Your task to perform on an android device: uninstall "Google Photos" Image 0: 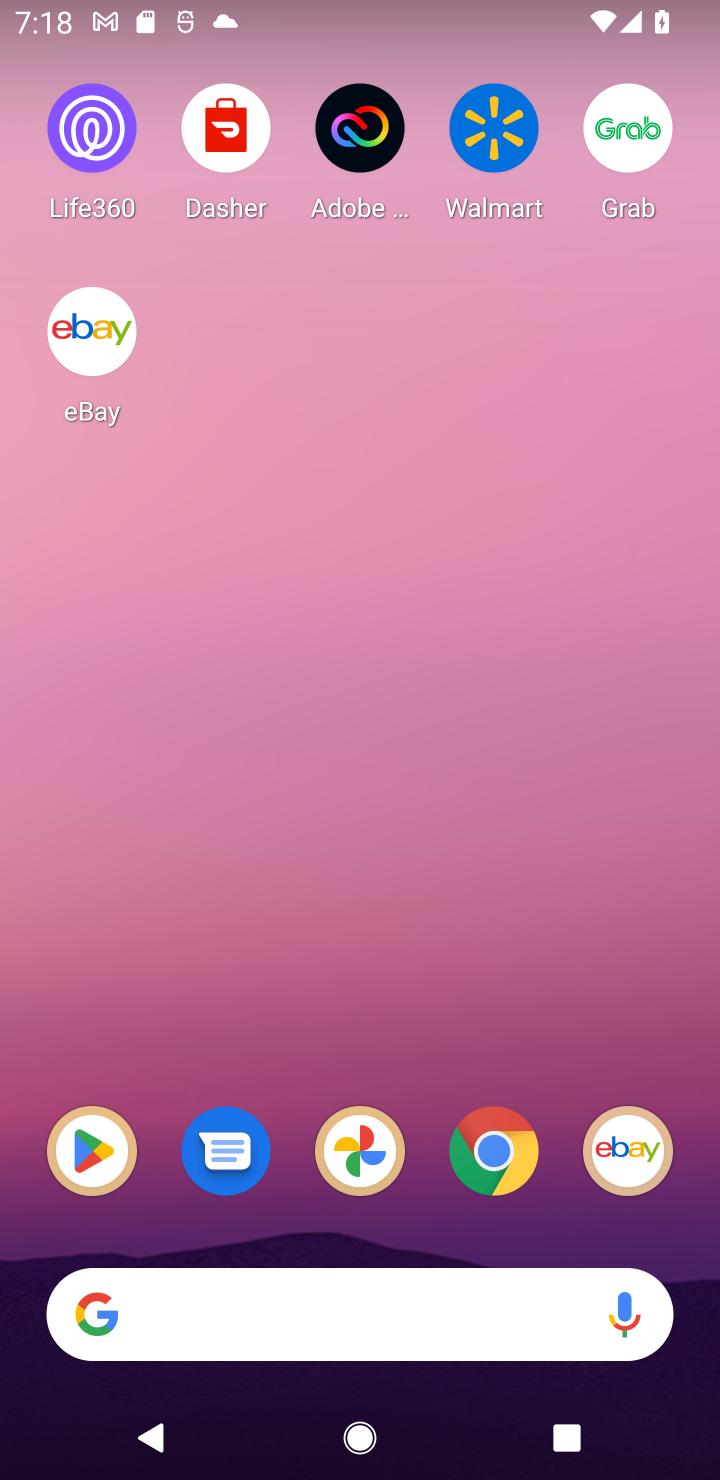
Step 0: click (47, 1177)
Your task to perform on an android device: uninstall "Google Photos" Image 1: 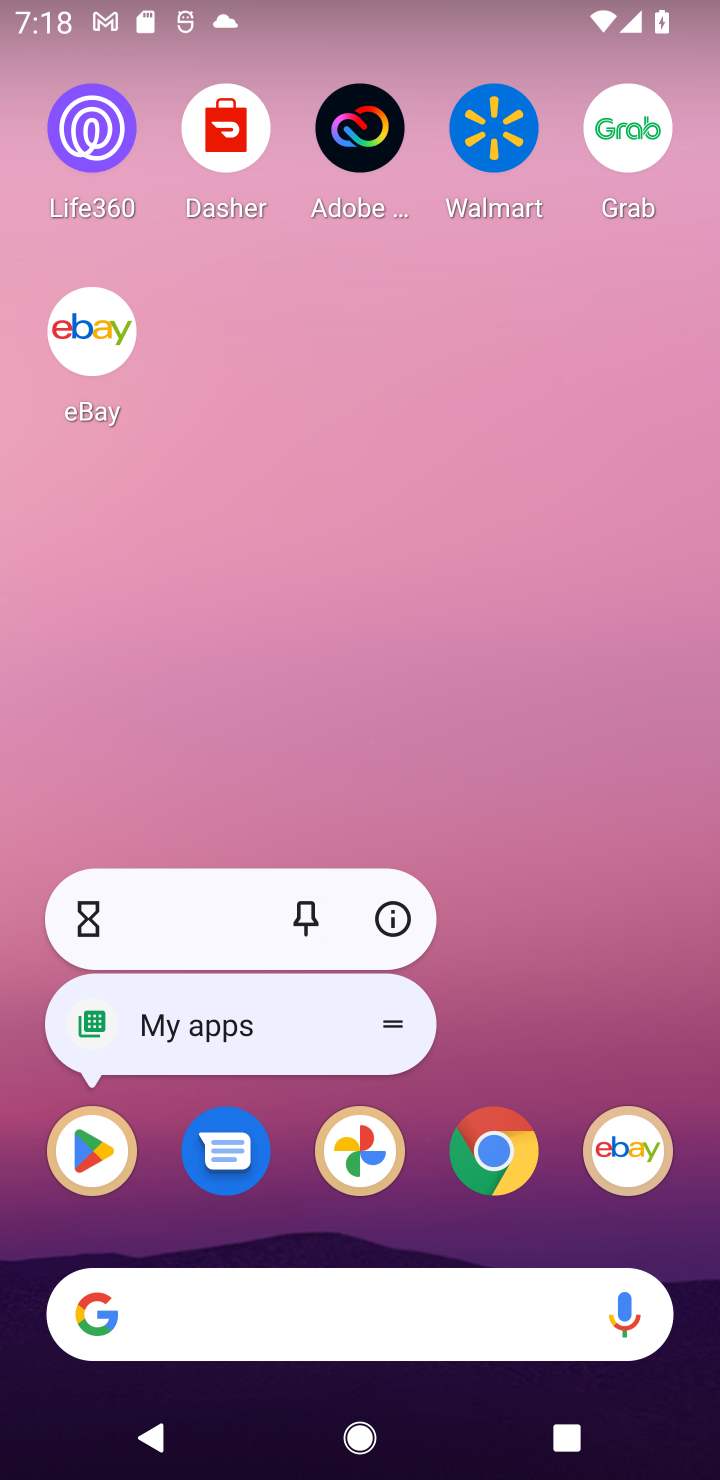
Step 1: click (71, 1150)
Your task to perform on an android device: uninstall "Google Photos" Image 2: 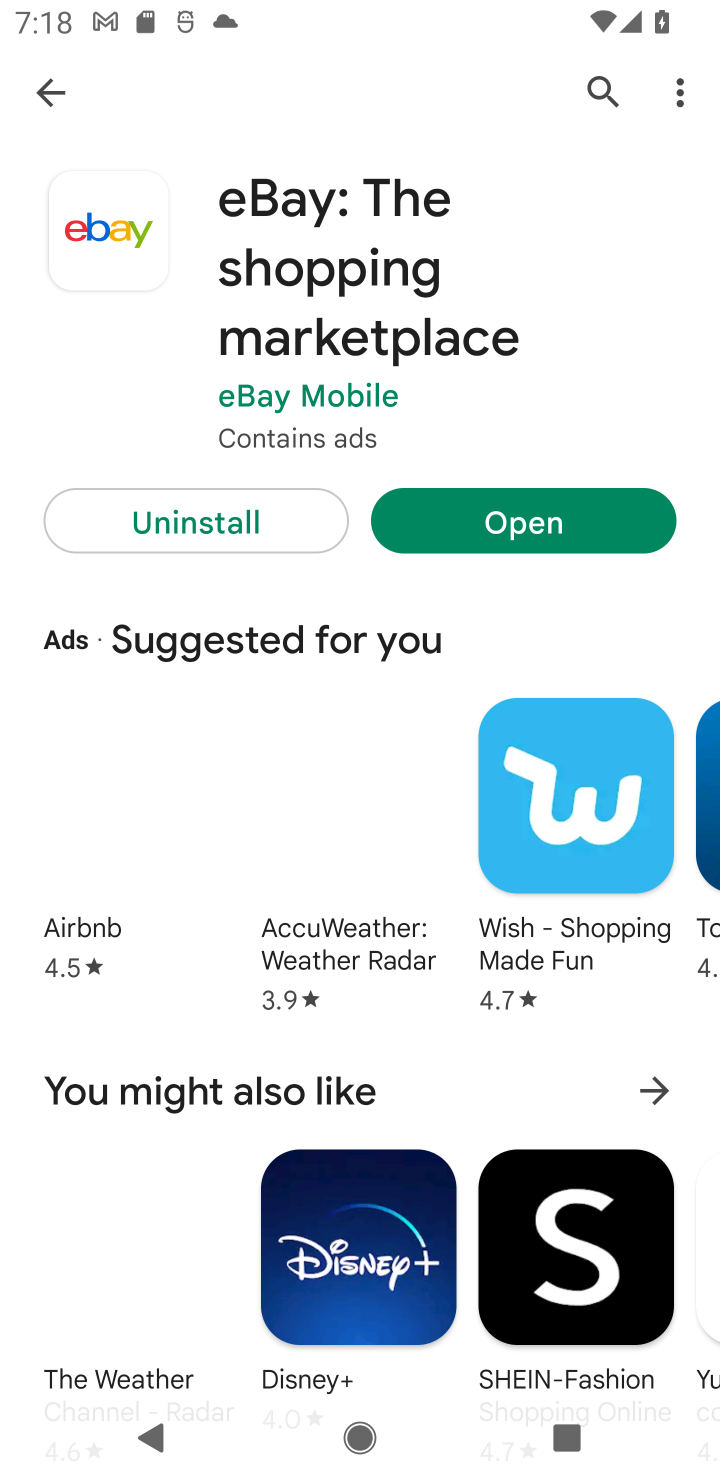
Step 2: click (606, 89)
Your task to perform on an android device: uninstall "Google Photos" Image 3: 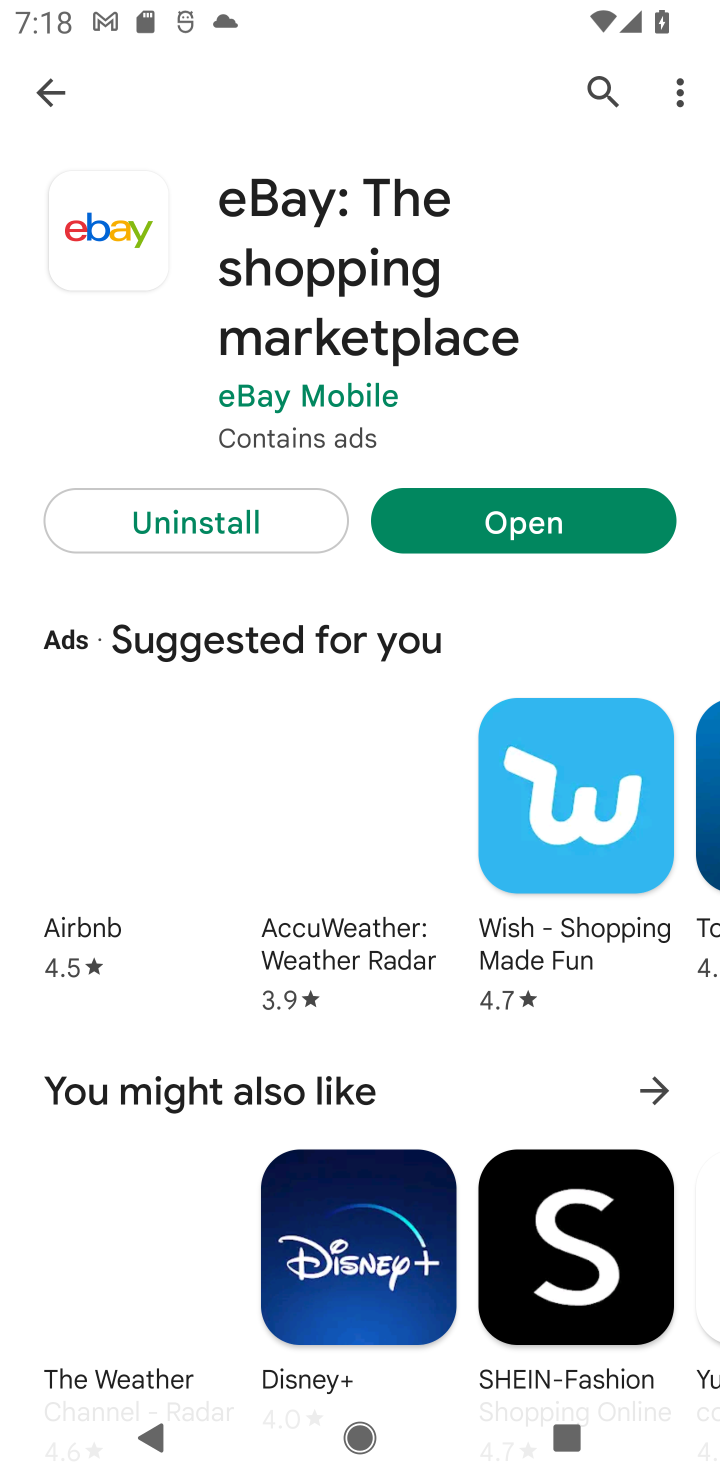
Step 3: click (584, 107)
Your task to perform on an android device: uninstall "Google Photos" Image 4: 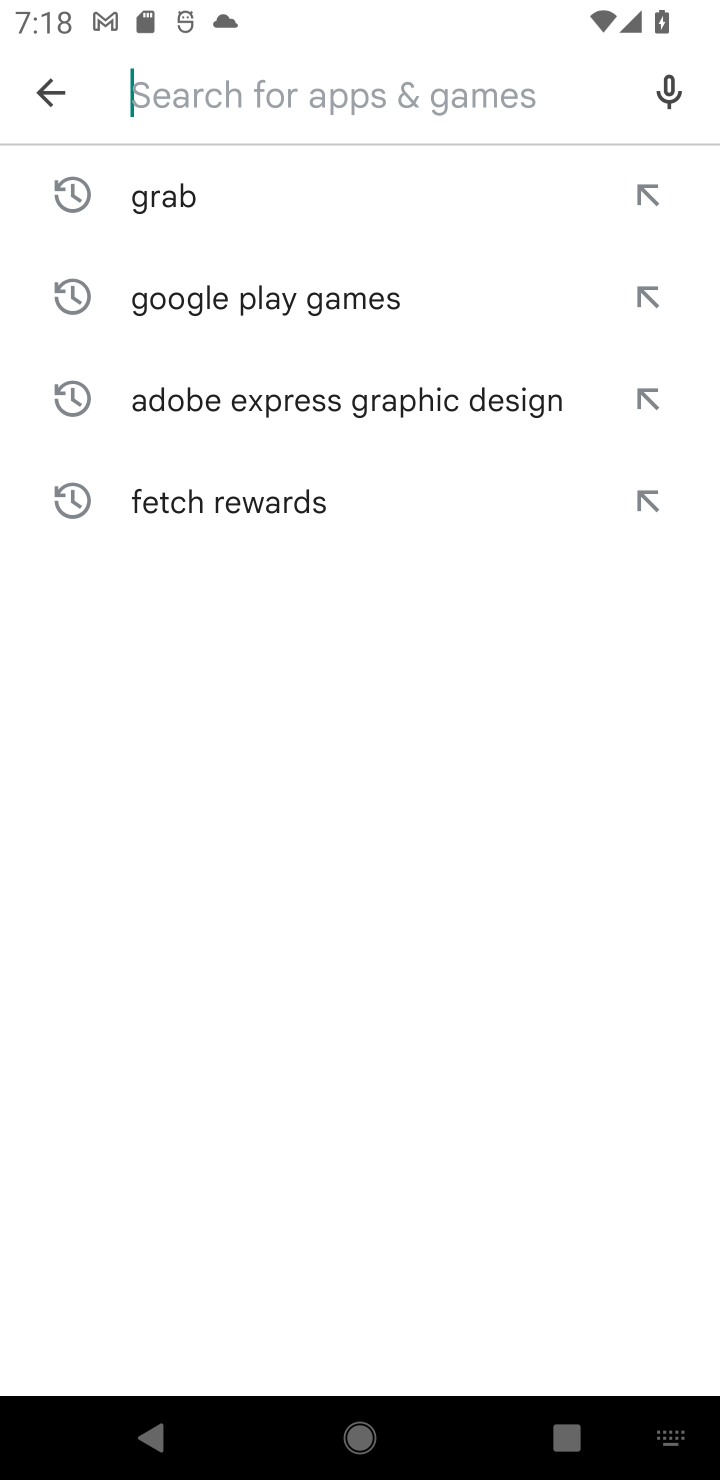
Step 4: type "Google Photos"
Your task to perform on an android device: uninstall "Google Photos" Image 5: 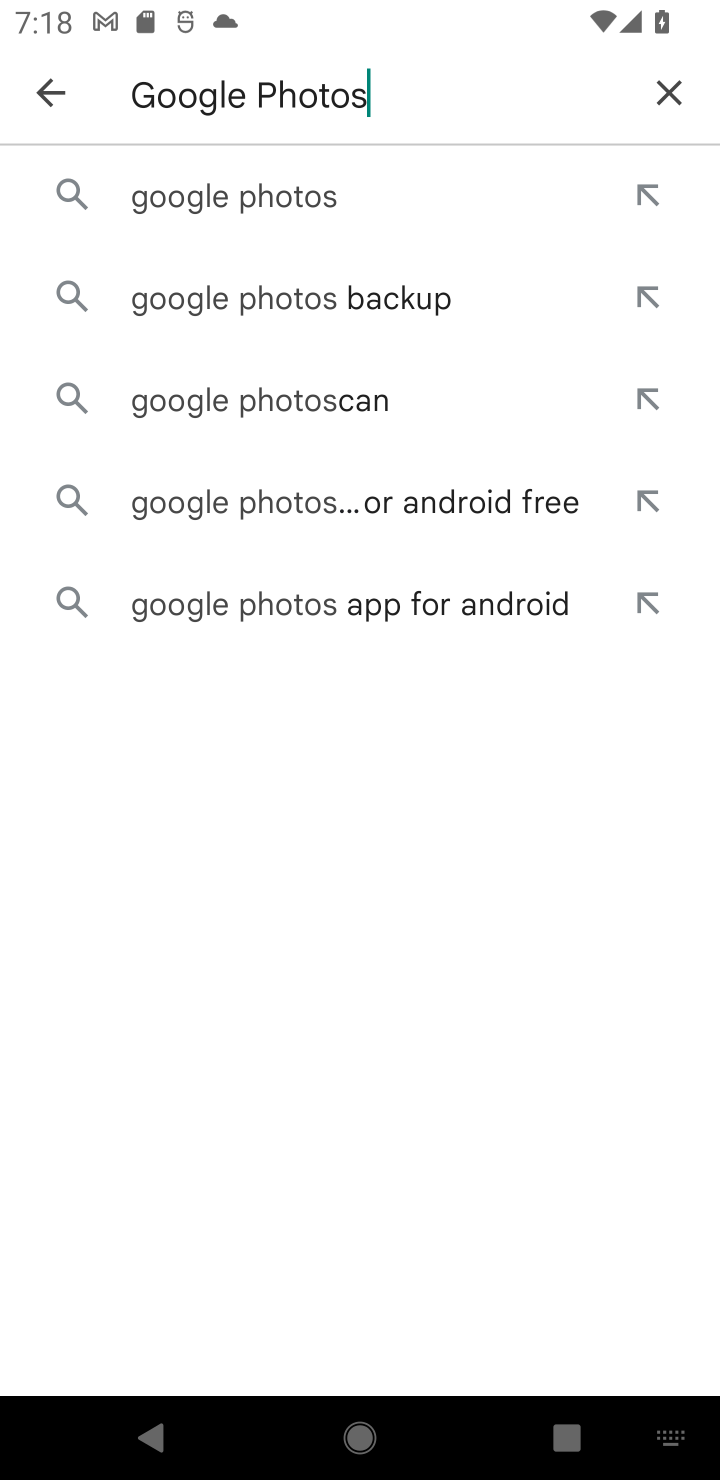
Step 5: click (303, 171)
Your task to perform on an android device: uninstall "Google Photos" Image 6: 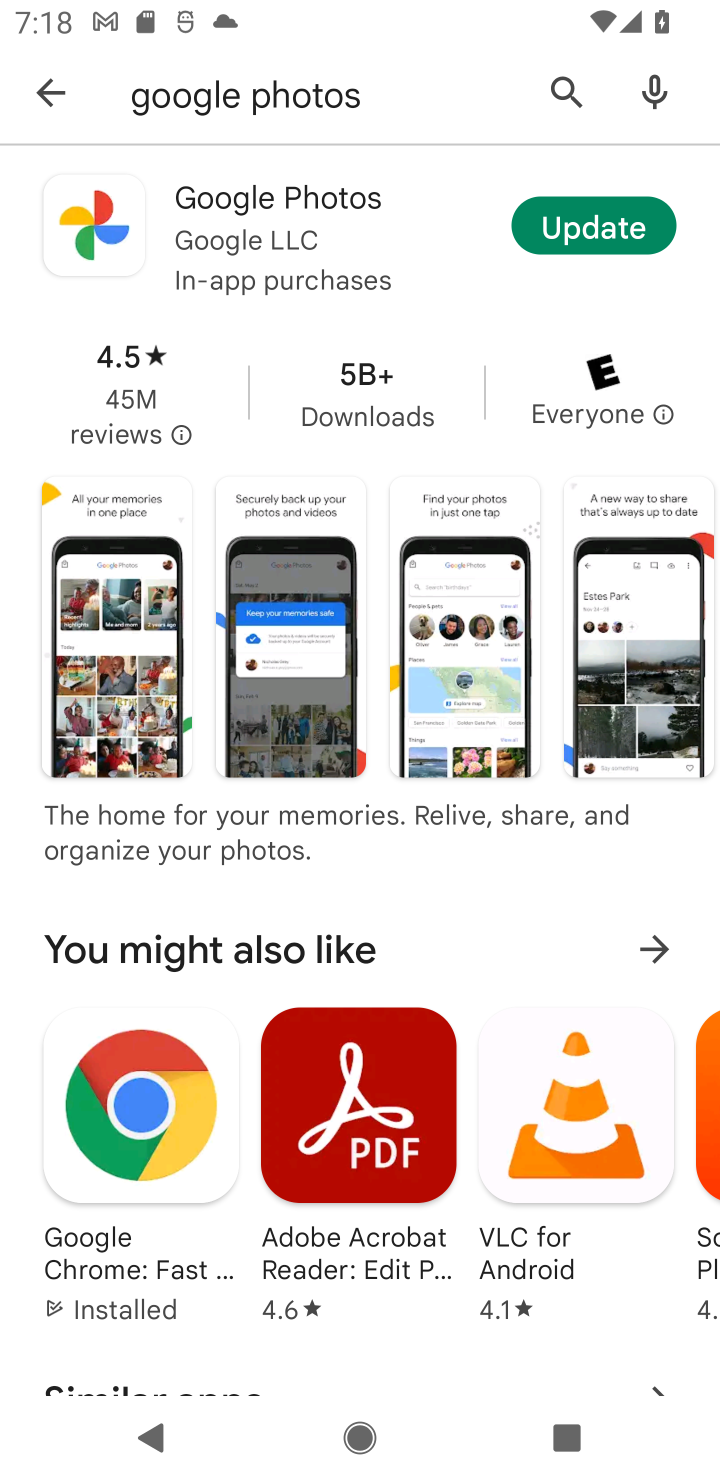
Step 6: click (288, 225)
Your task to perform on an android device: uninstall "Google Photos" Image 7: 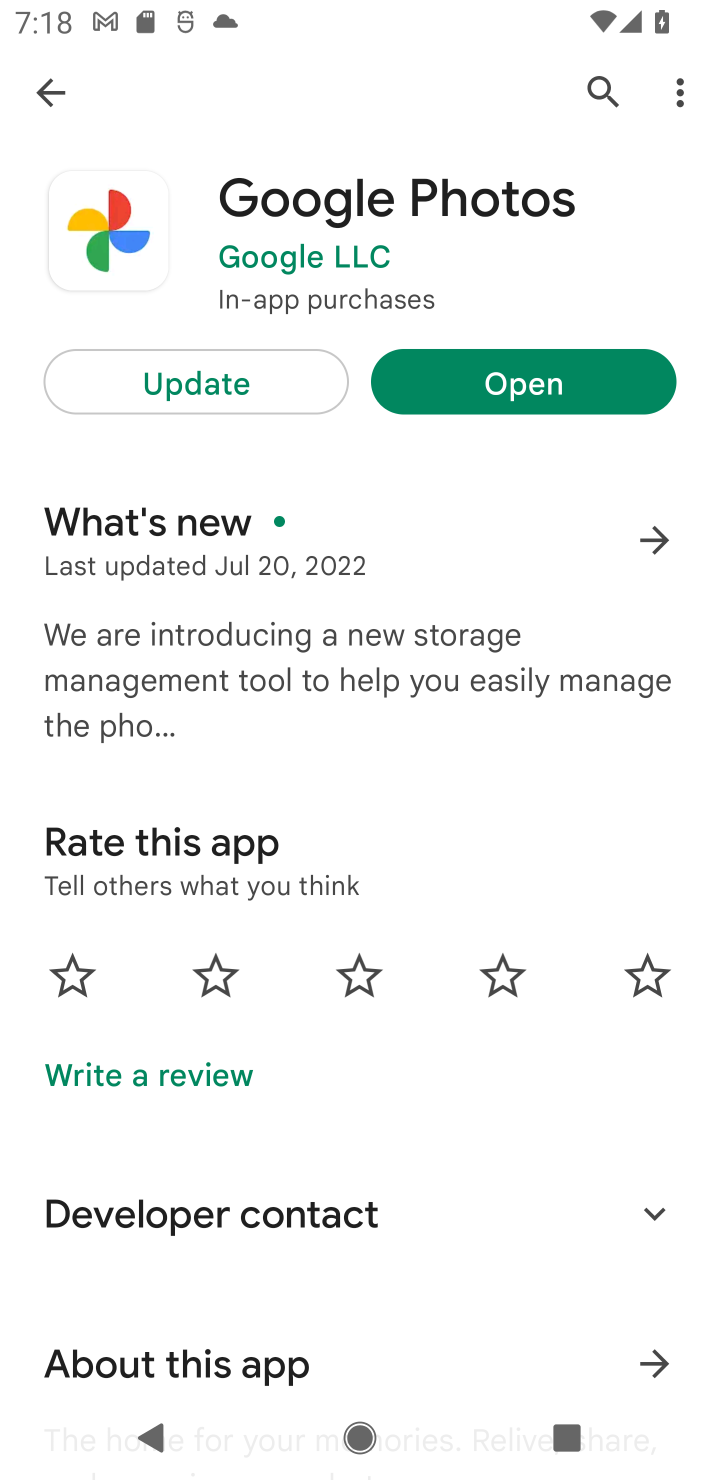
Step 7: click (215, 374)
Your task to perform on an android device: uninstall "Google Photos" Image 8: 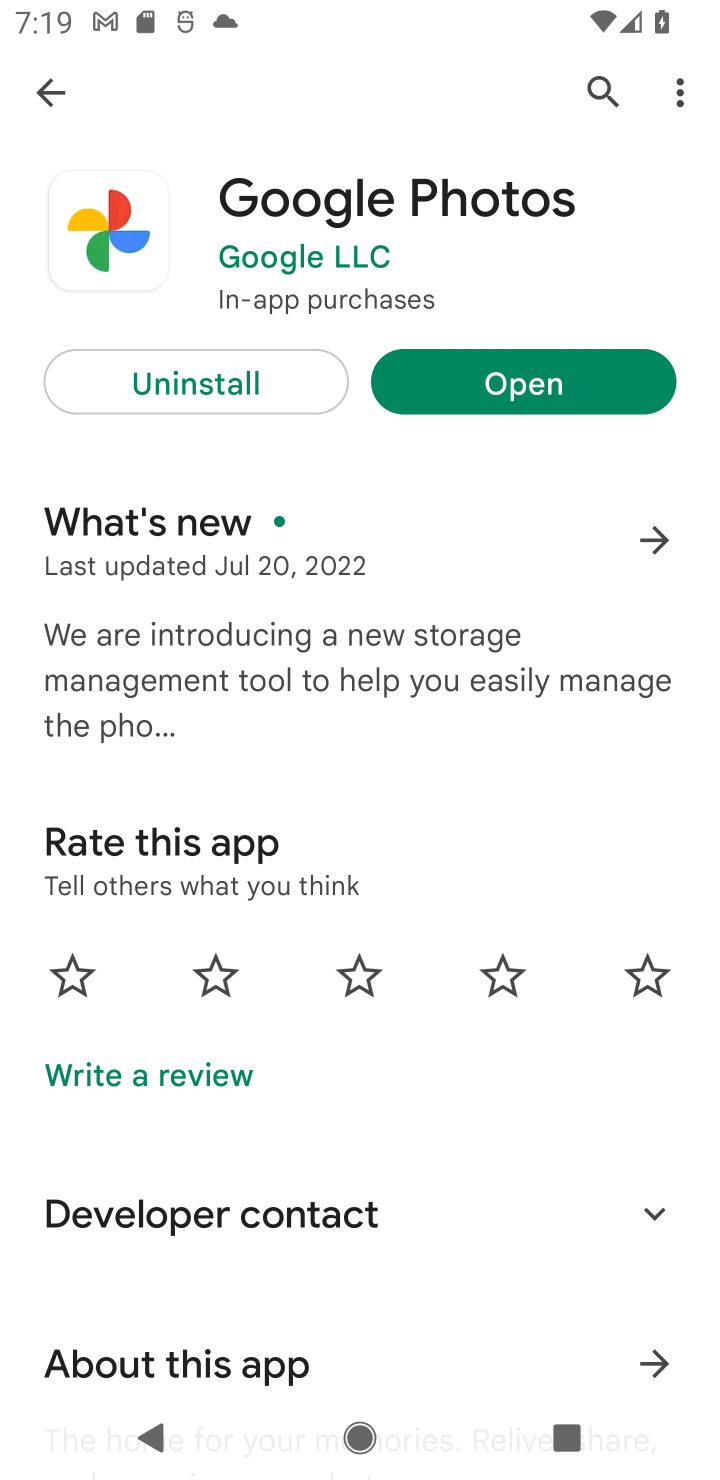
Step 8: click (269, 382)
Your task to perform on an android device: uninstall "Google Photos" Image 9: 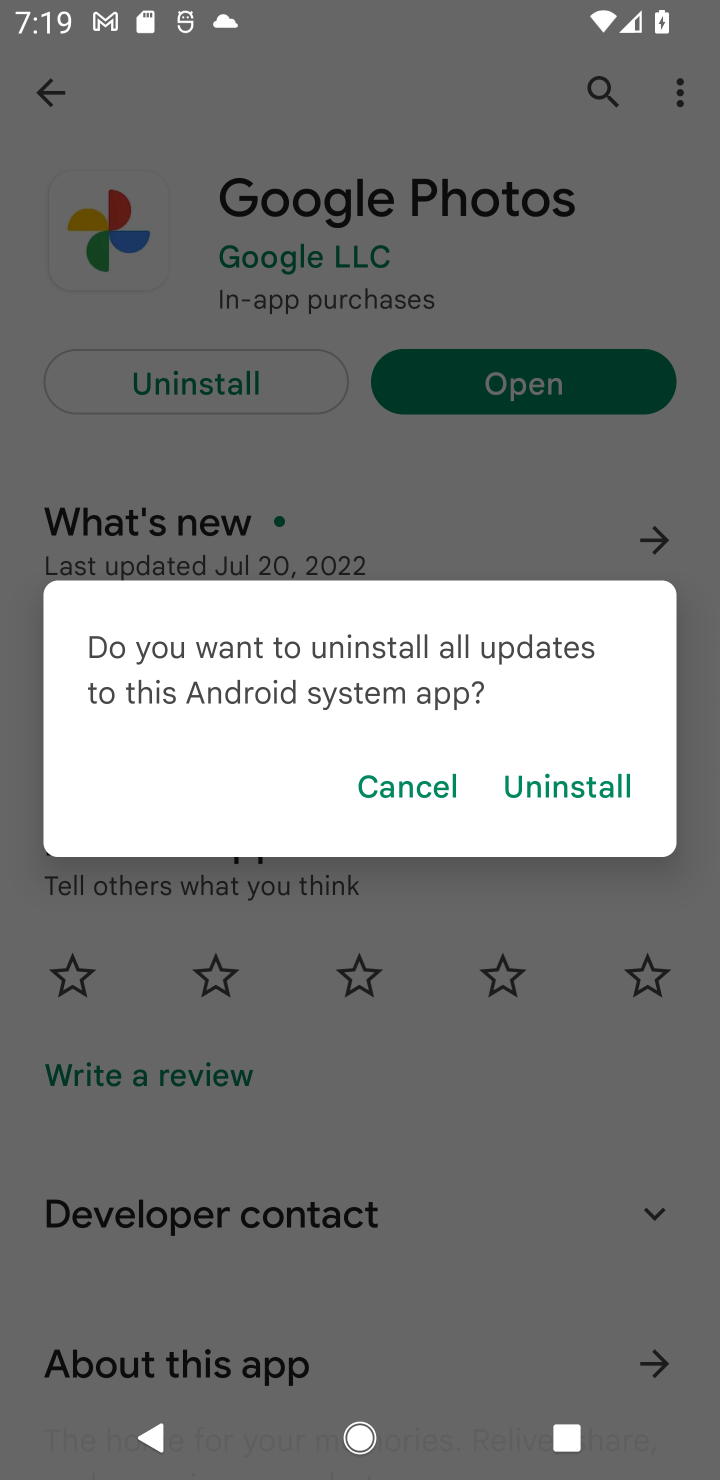
Step 9: click (578, 767)
Your task to perform on an android device: uninstall "Google Photos" Image 10: 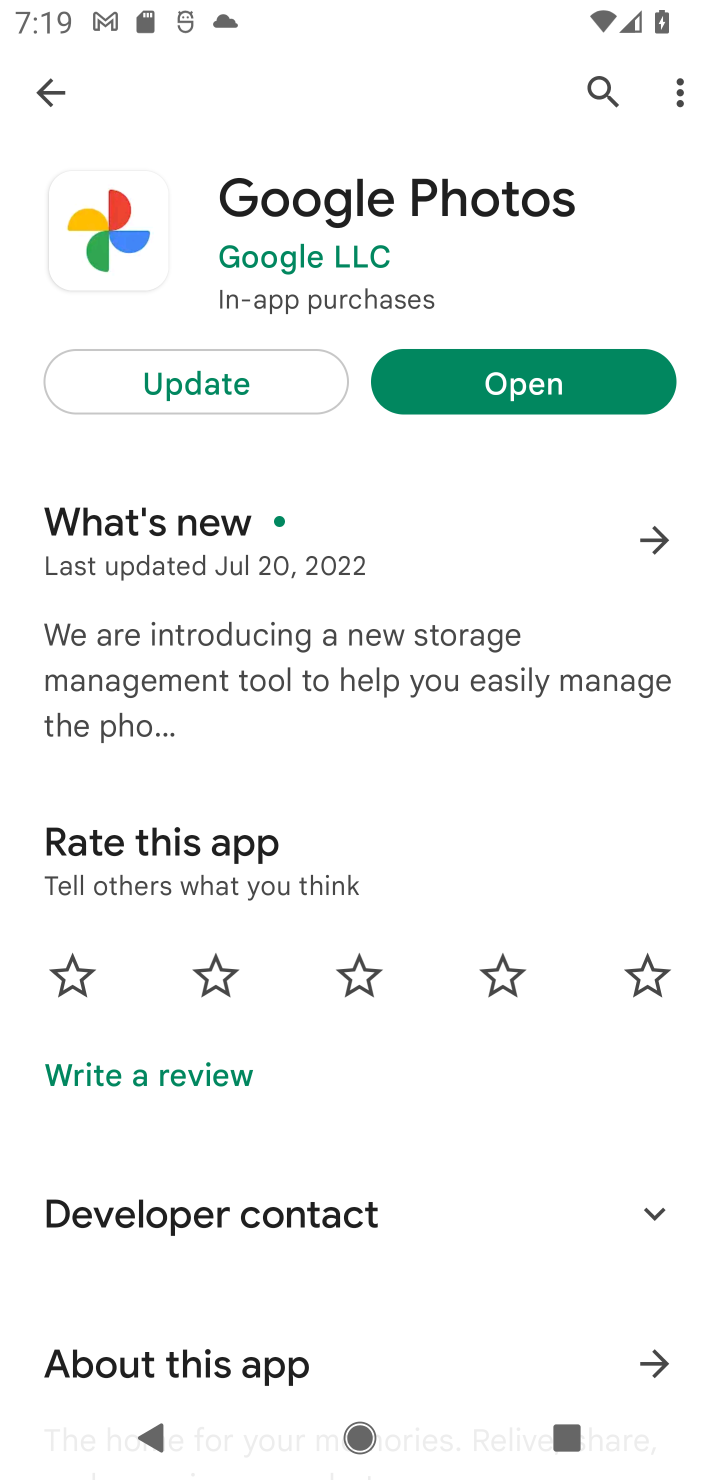
Step 10: task complete